Your task to perform on an android device: turn off location Image 0: 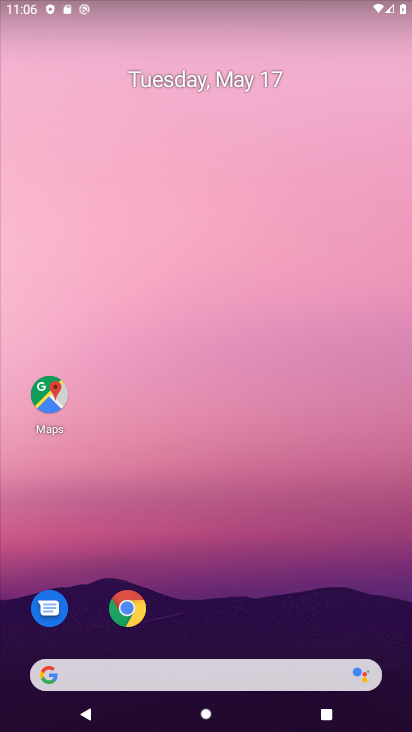
Step 0: drag from (203, 609) to (331, 43)
Your task to perform on an android device: turn off location Image 1: 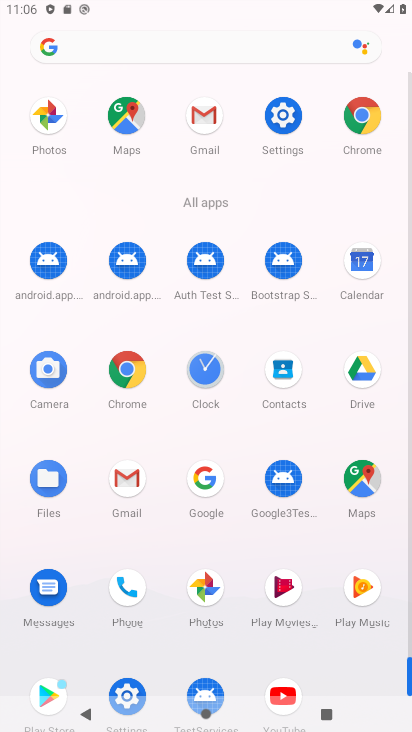
Step 1: click (123, 685)
Your task to perform on an android device: turn off location Image 2: 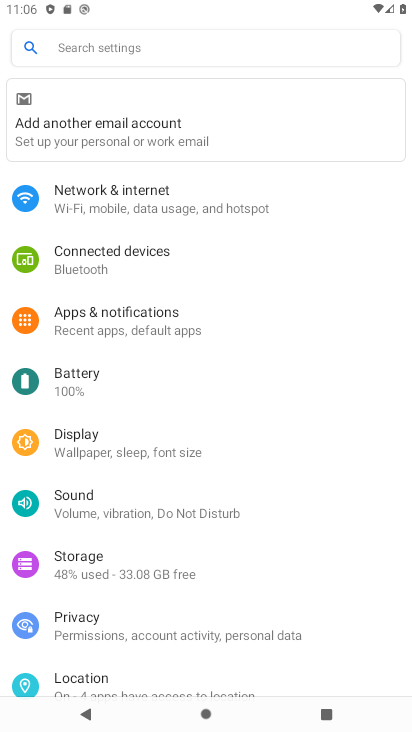
Step 2: click (86, 674)
Your task to perform on an android device: turn off location Image 3: 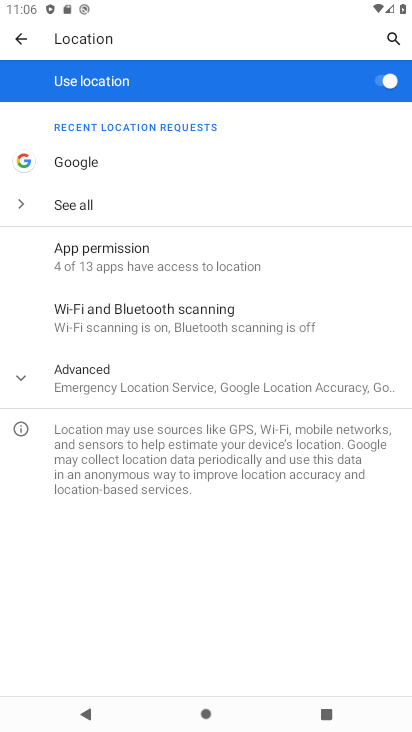
Step 3: click (366, 83)
Your task to perform on an android device: turn off location Image 4: 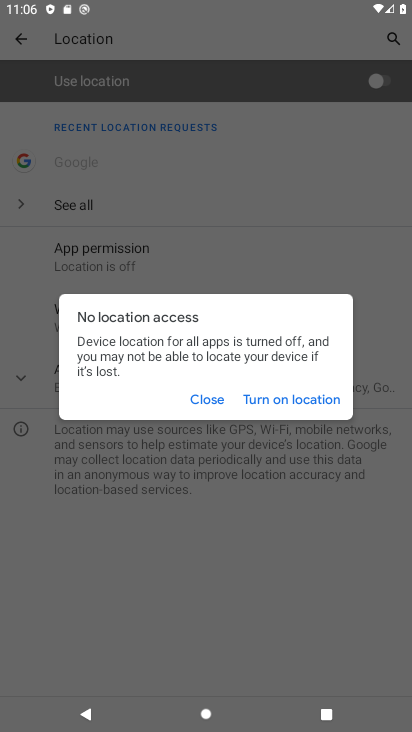
Step 4: click (205, 402)
Your task to perform on an android device: turn off location Image 5: 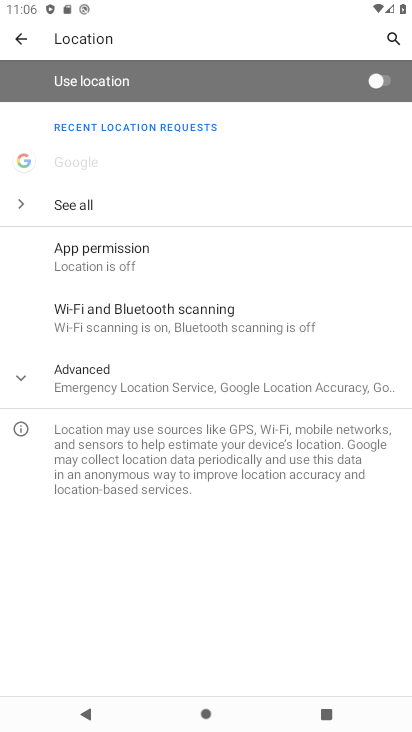
Step 5: task complete